Your task to perform on an android device: see sites visited before in the chrome app Image 0: 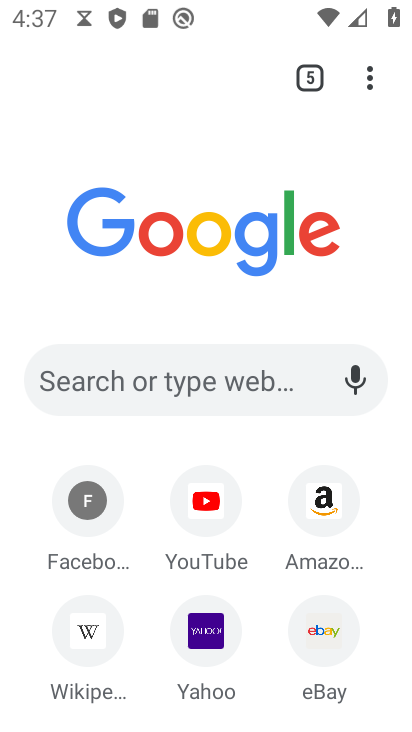
Step 0: press back button
Your task to perform on an android device: see sites visited before in the chrome app Image 1: 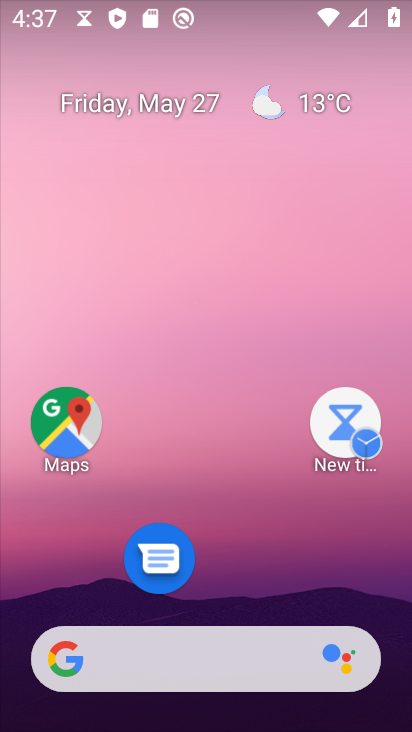
Step 1: click (227, 141)
Your task to perform on an android device: see sites visited before in the chrome app Image 2: 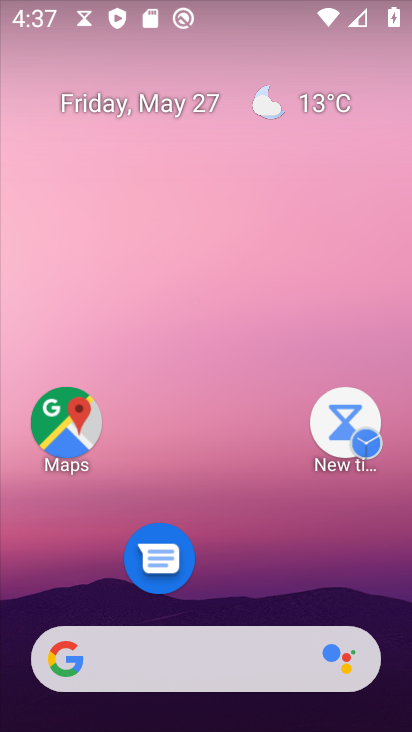
Step 2: drag from (261, 663) to (199, 188)
Your task to perform on an android device: see sites visited before in the chrome app Image 3: 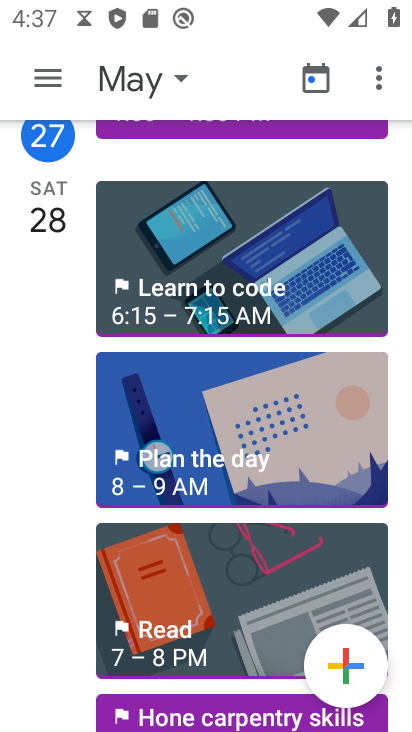
Step 3: drag from (277, 510) to (199, 106)
Your task to perform on an android device: see sites visited before in the chrome app Image 4: 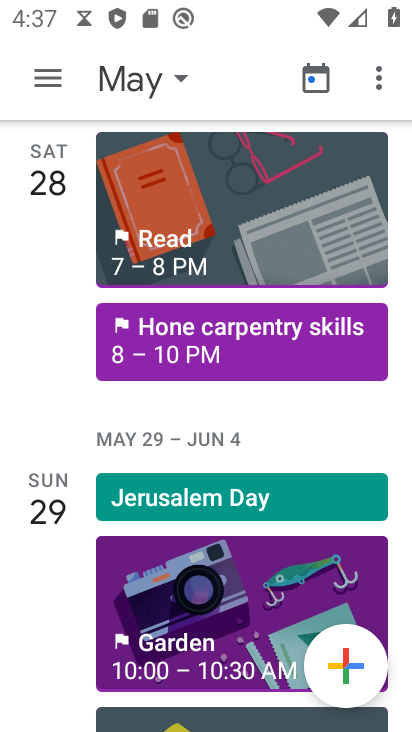
Step 4: click (376, 85)
Your task to perform on an android device: see sites visited before in the chrome app Image 5: 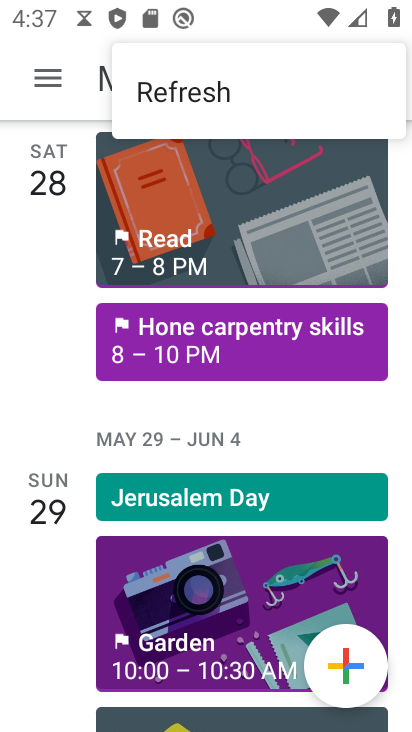
Step 5: press back button
Your task to perform on an android device: see sites visited before in the chrome app Image 6: 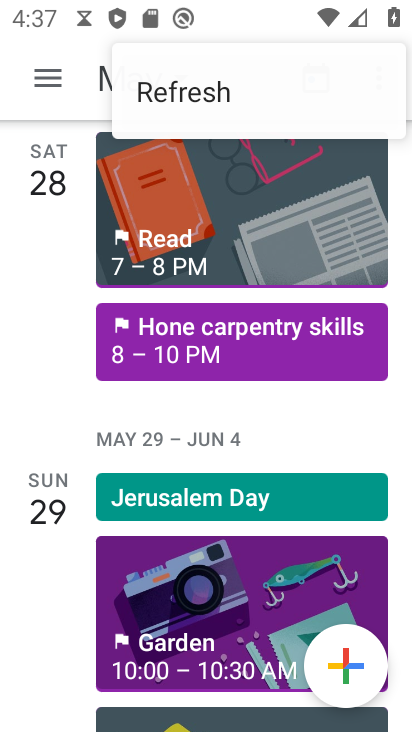
Step 6: press back button
Your task to perform on an android device: see sites visited before in the chrome app Image 7: 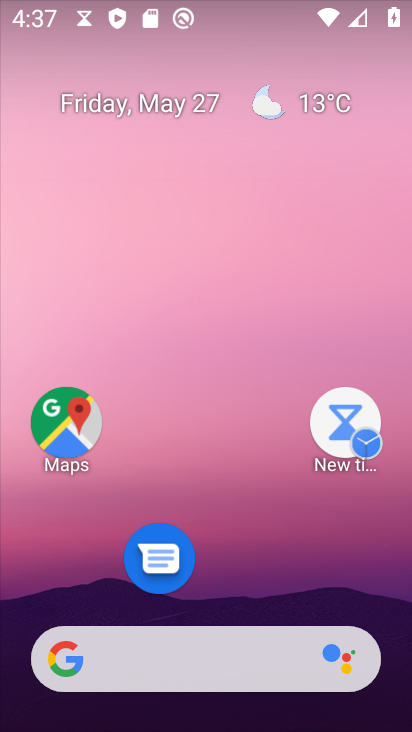
Step 7: drag from (339, 679) to (289, 9)
Your task to perform on an android device: see sites visited before in the chrome app Image 8: 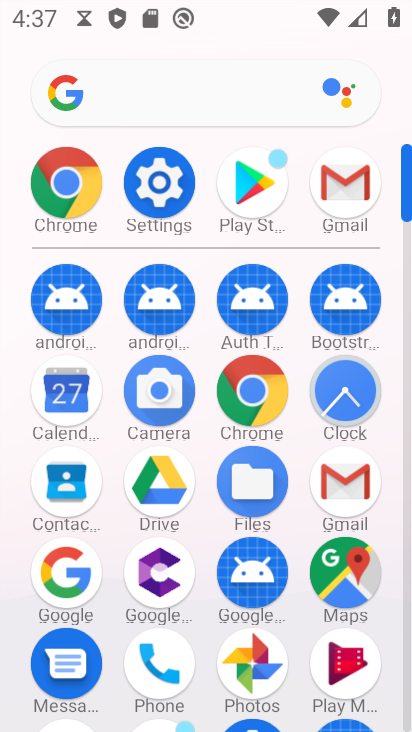
Step 8: click (245, 392)
Your task to perform on an android device: see sites visited before in the chrome app Image 9: 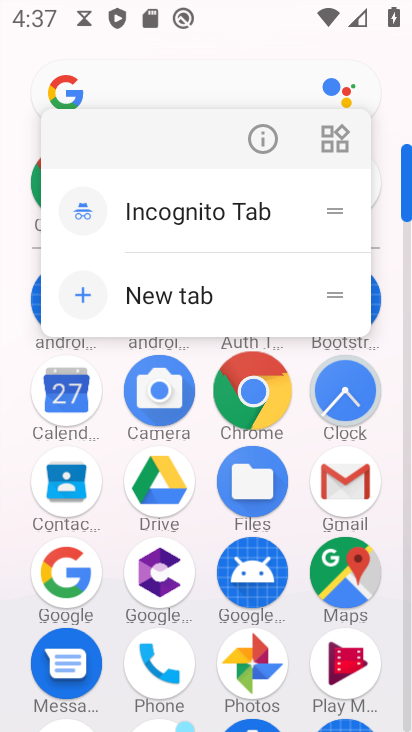
Step 9: click (245, 392)
Your task to perform on an android device: see sites visited before in the chrome app Image 10: 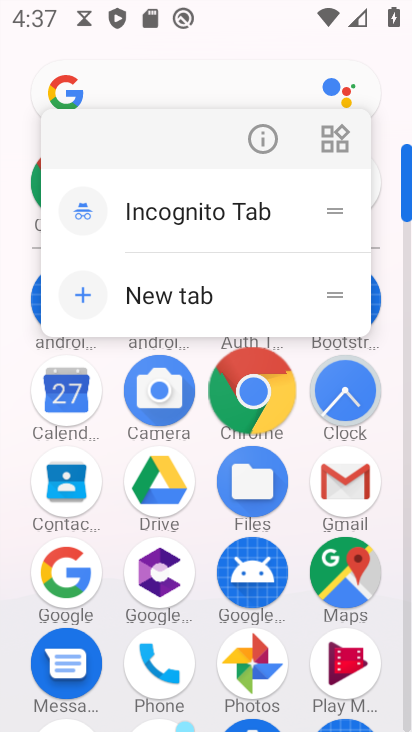
Step 10: click (245, 392)
Your task to perform on an android device: see sites visited before in the chrome app Image 11: 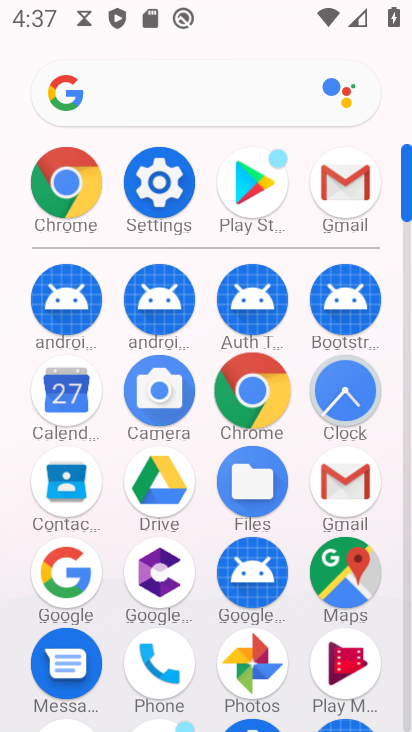
Step 11: click (245, 392)
Your task to perform on an android device: see sites visited before in the chrome app Image 12: 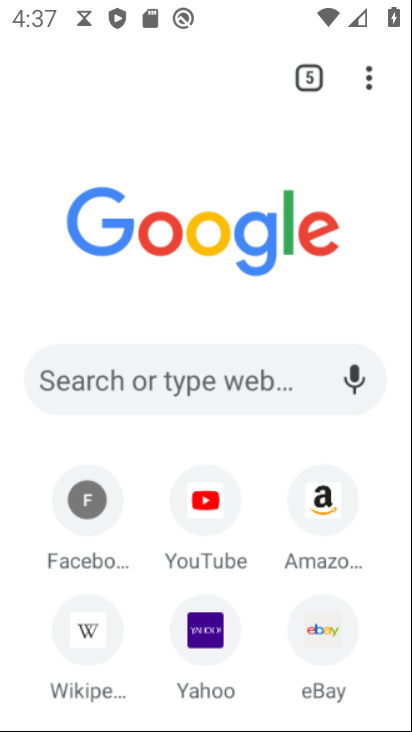
Step 12: click (247, 392)
Your task to perform on an android device: see sites visited before in the chrome app Image 13: 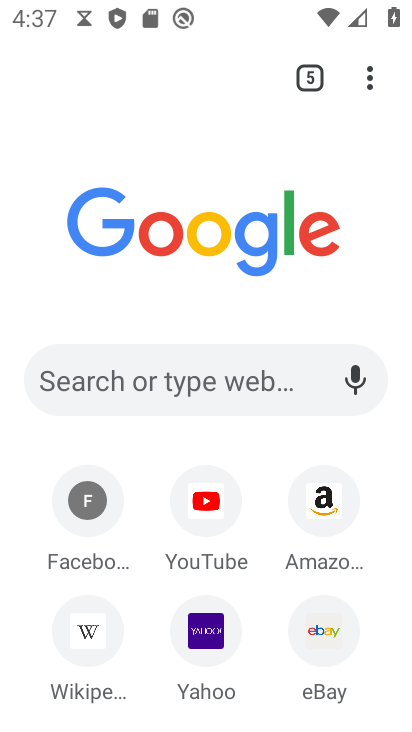
Step 13: click (247, 392)
Your task to perform on an android device: see sites visited before in the chrome app Image 14: 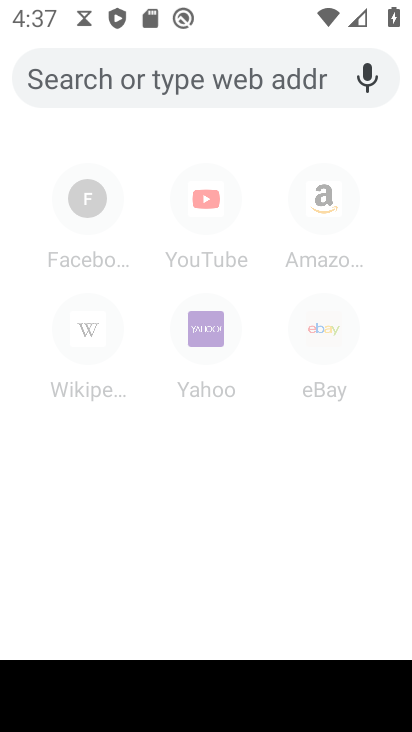
Step 14: press back button
Your task to perform on an android device: see sites visited before in the chrome app Image 15: 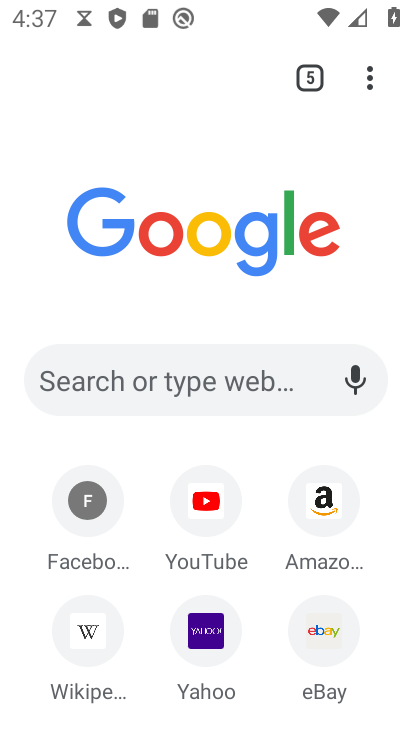
Step 15: drag from (369, 85) to (116, 340)
Your task to perform on an android device: see sites visited before in the chrome app Image 16: 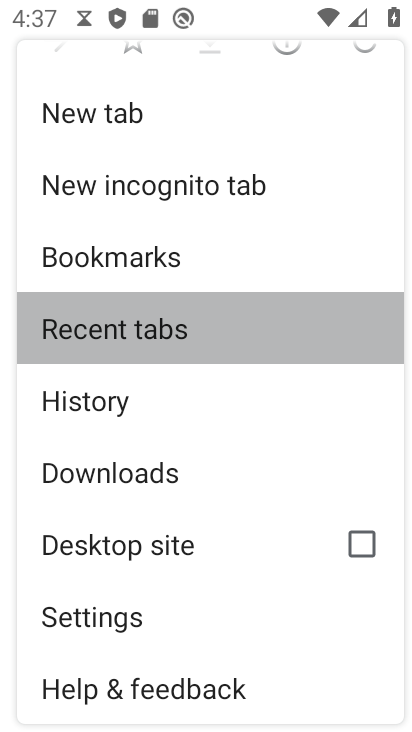
Step 16: click (116, 340)
Your task to perform on an android device: see sites visited before in the chrome app Image 17: 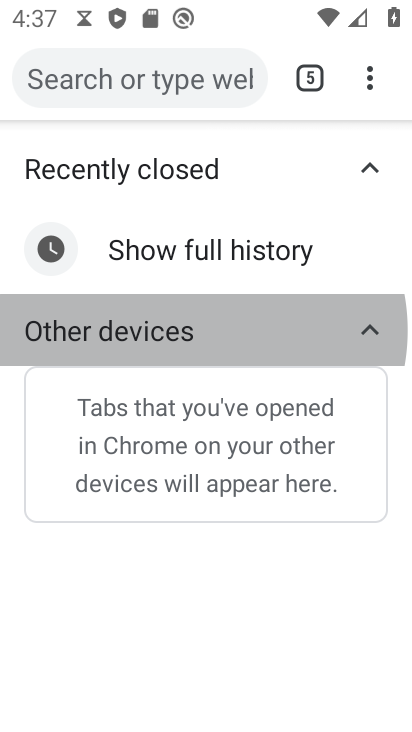
Step 17: click (116, 340)
Your task to perform on an android device: see sites visited before in the chrome app Image 18: 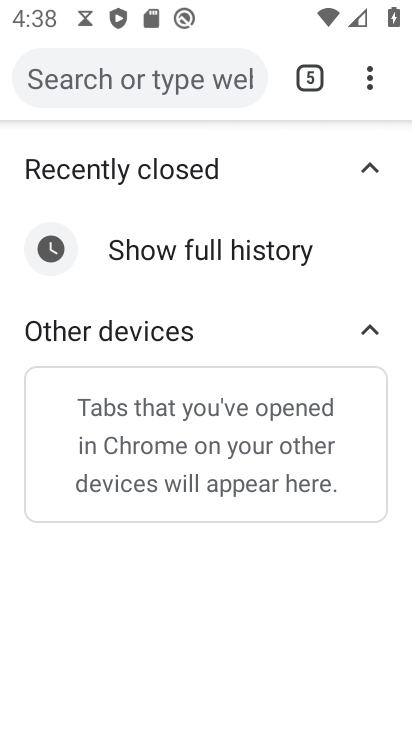
Step 18: task complete